Your task to perform on an android device: open chrome and create a bookmark for the current page Image 0: 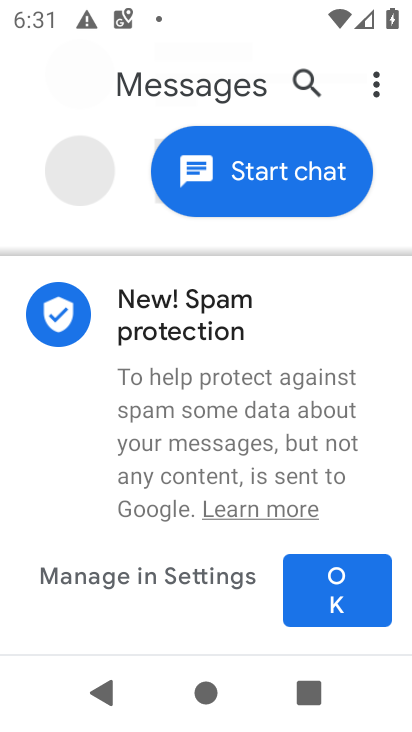
Step 0: press home button
Your task to perform on an android device: open chrome and create a bookmark for the current page Image 1: 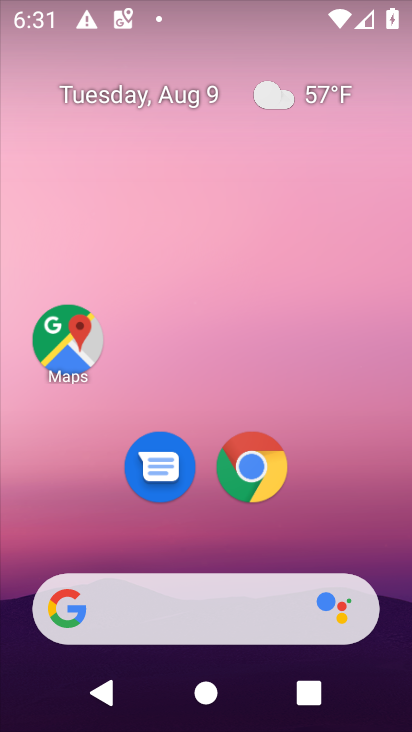
Step 1: click (256, 463)
Your task to perform on an android device: open chrome and create a bookmark for the current page Image 2: 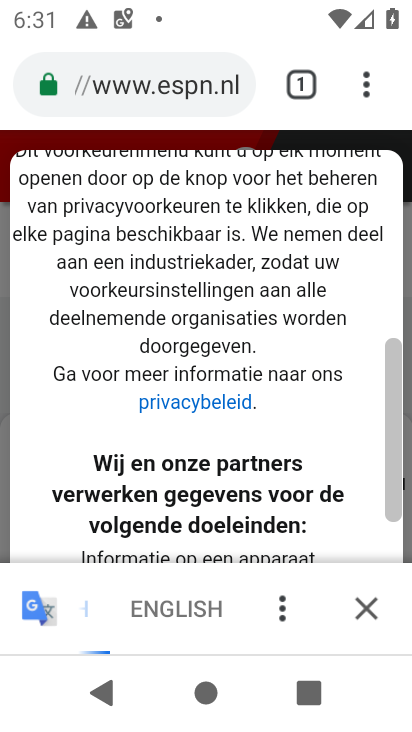
Step 2: click (368, 87)
Your task to perform on an android device: open chrome and create a bookmark for the current page Image 3: 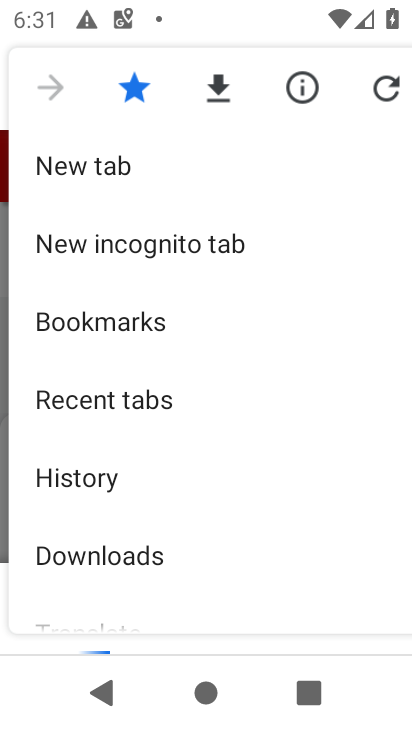
Step 3: task complete